Your task to perform on an android device: Open Google Image 0: 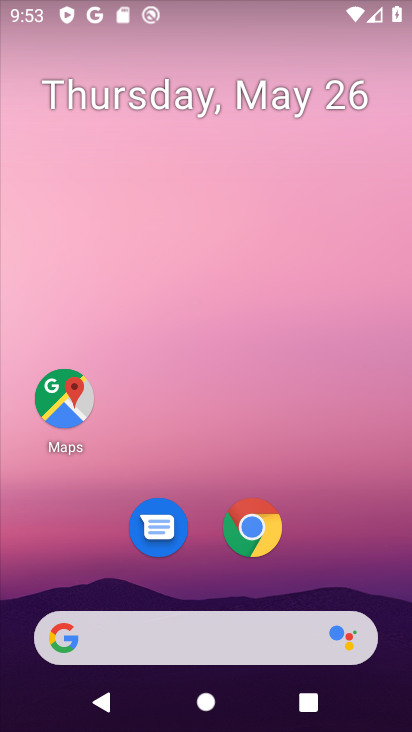
Step 0: drag from (340, 576) to (393, 76)
Your task to perform on an android device: Open Google Image 1: 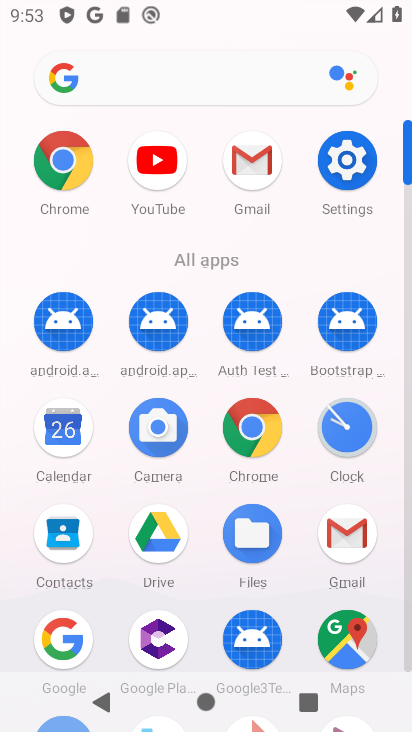
Step 1: click (55, 647)
Your task to perform on an android device: Open Google Image 2: 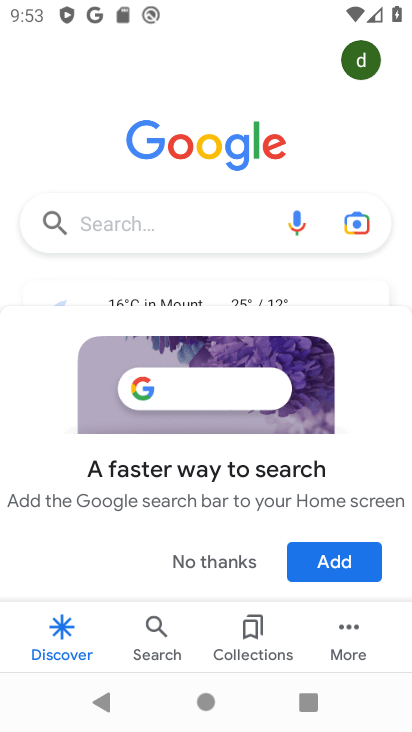
Step 2: task complete